Your task to perform on an android device: open app "Google Chrome" (install if not already installed) Image 0: 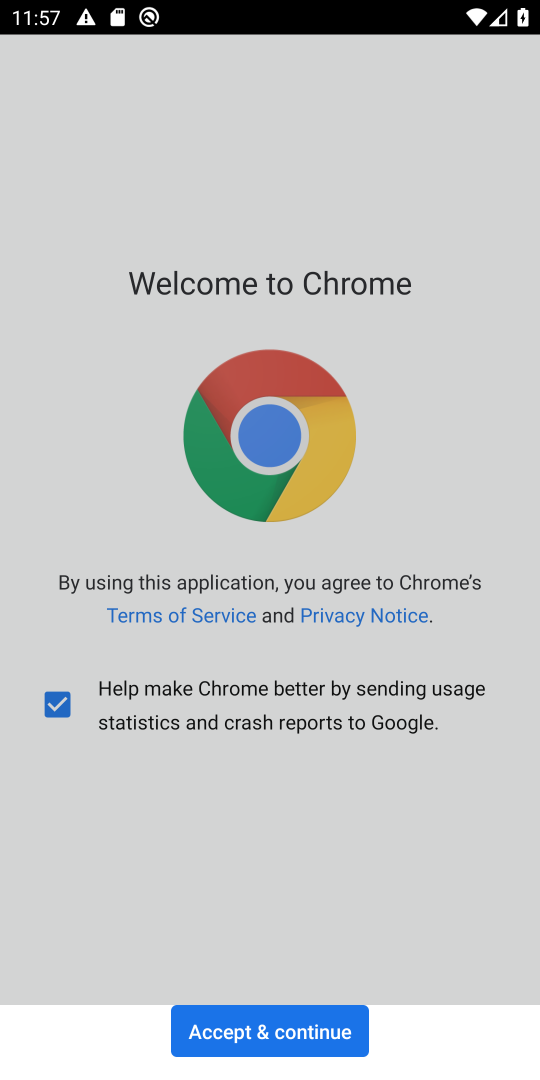
Step 0: press home button
Your task to perform on an android device: open app "Google Chrome" (install if not already installed) Image 1: 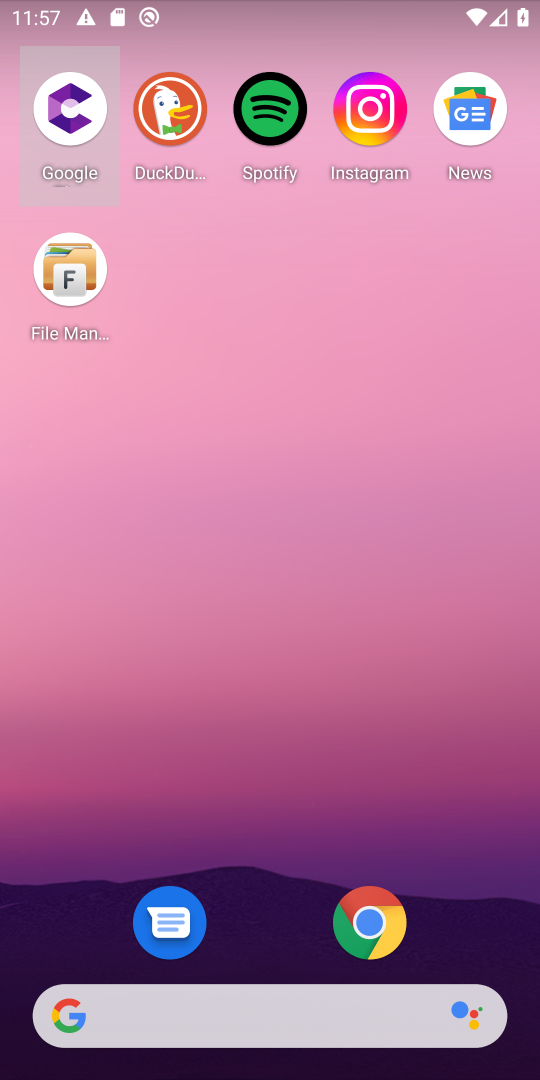
Step 1: drag from (384, 559) to (375, 93)
Your task to perform on an android device: open app "Google Chrome" (install if not already installed) Image 2: 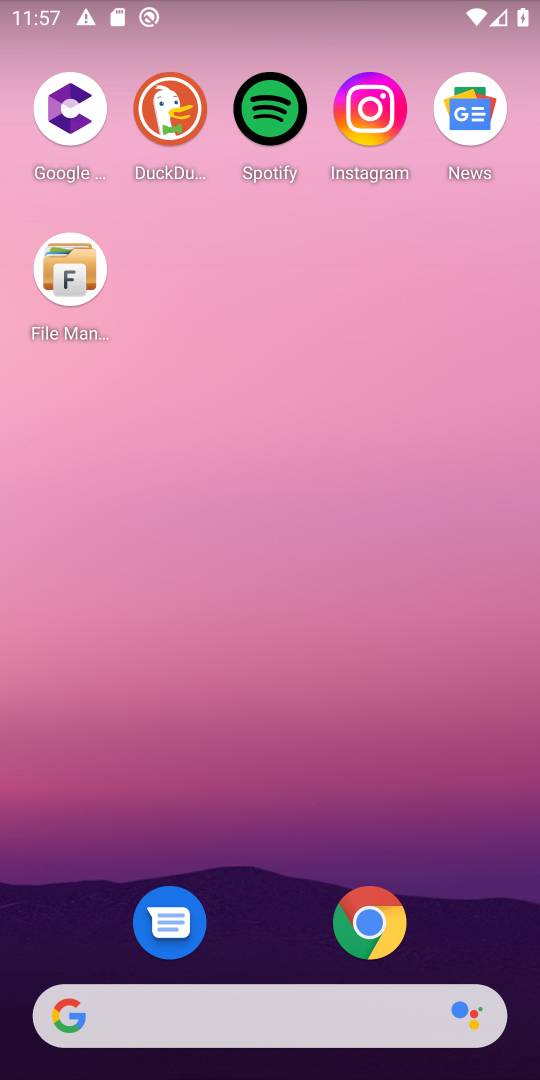
Step 2: drag from (427, 741) to (397, 149)
Your task to perform on an android device: open app "Google Chrome" (install if not already installed) Image 3: 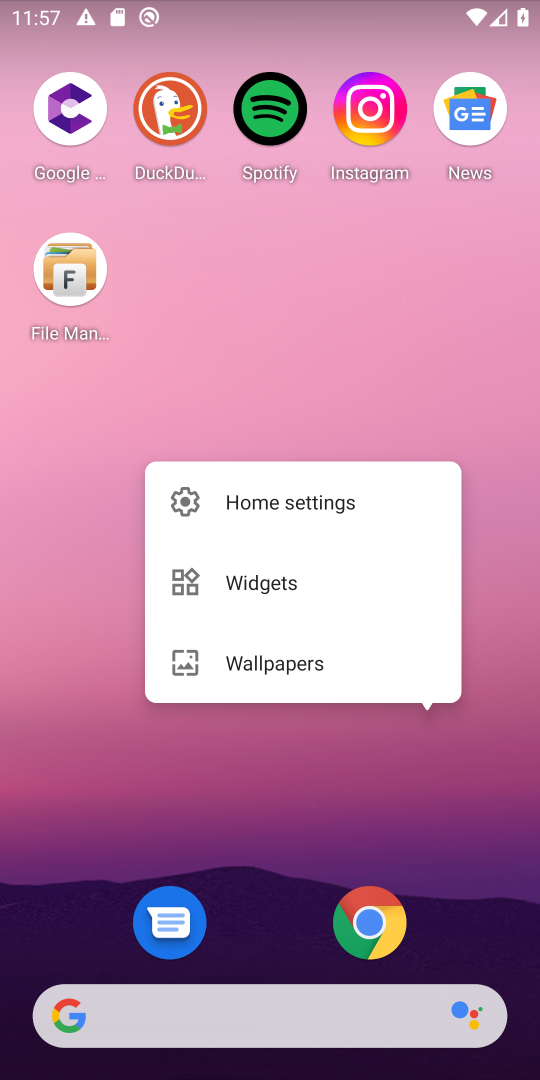
Step 3: click (352, 404)
Your task to perform on an android device: open app "Google Chrome" (install if not already installed) Image 4: 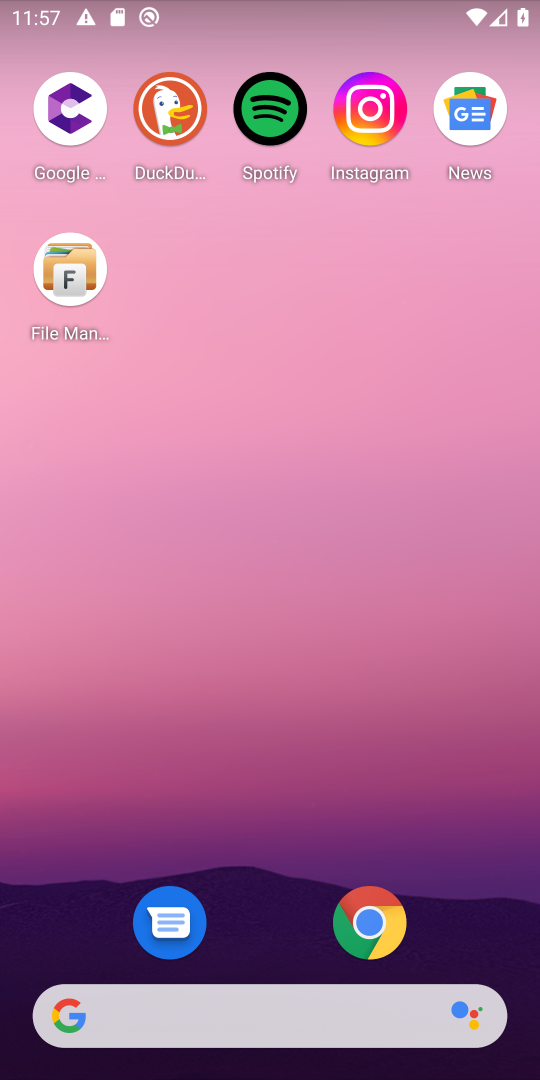
Step 4: drag from (459, 924) to (378, 112)
Your task to perform on an android device: open app "Google Chrome" (install if not already installed) Image 5: 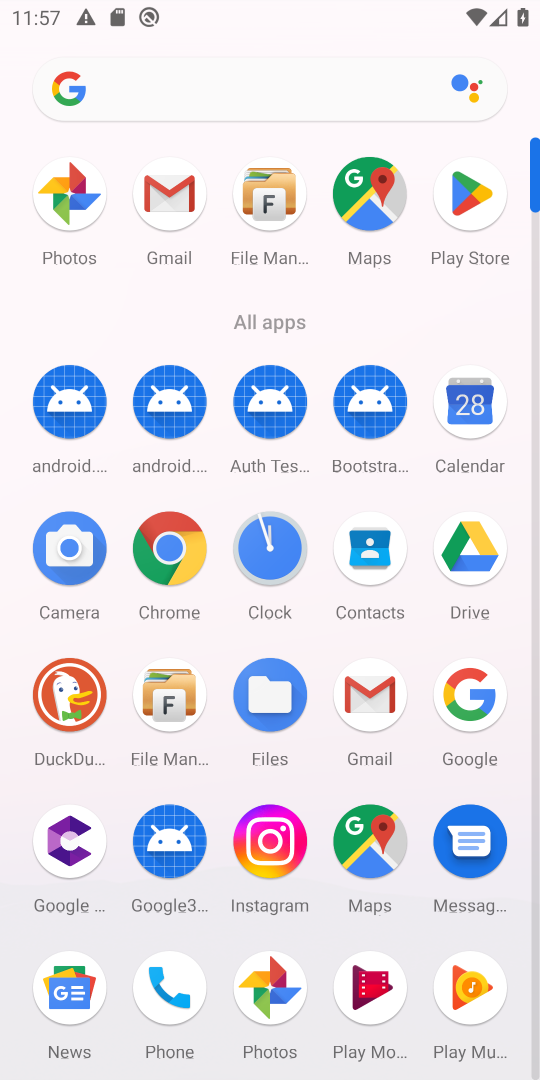
Step 5: click (473, 212)
Your task to perform on an android device: open app "Google Chrome" (install if not already installed) Image 6: 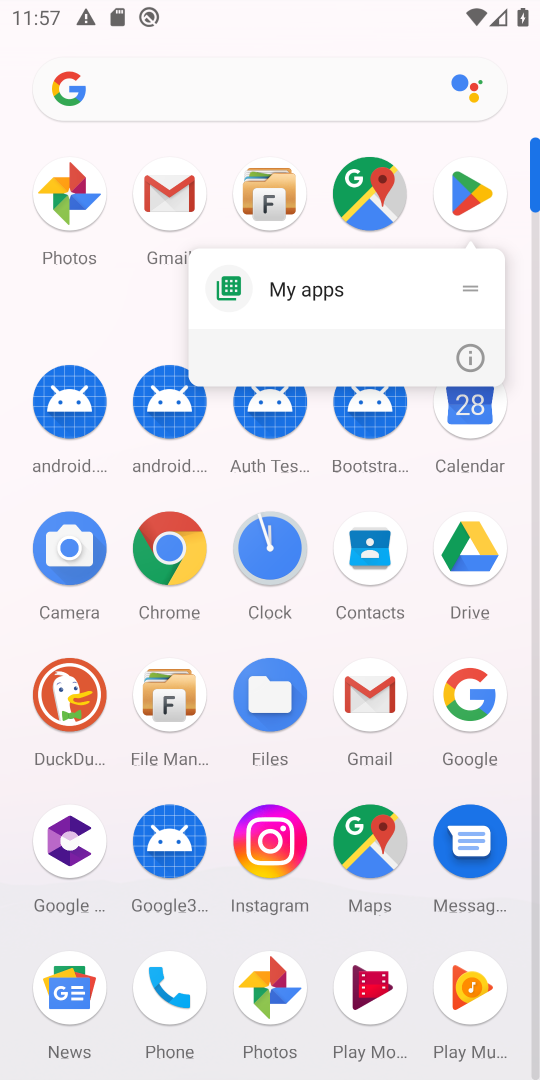
Step 6: click (471, 192)
Your task to perform on an android device: open app "Google Chrome" (install if not already installed) Image 7: 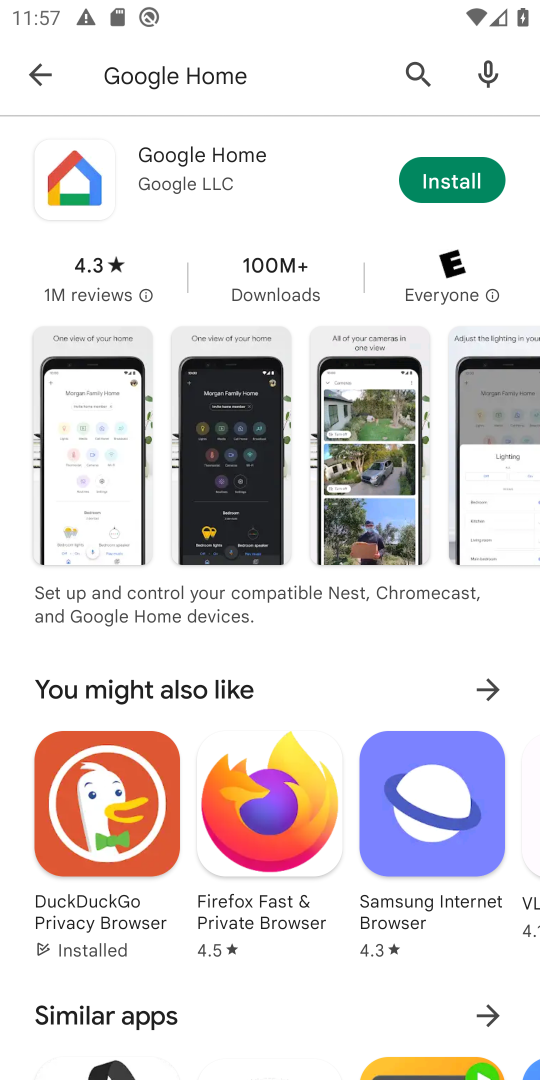
Step 7: click (254, 86)
Your task to perform on an android device: open app "Google Chrome" (install if not already installed) Image 8: 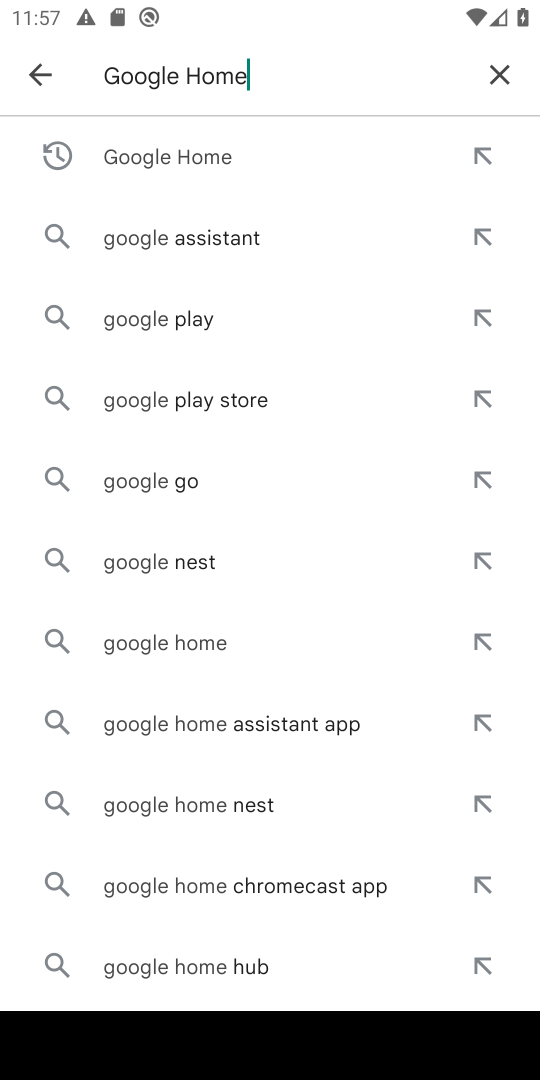
Step 8: click (506, 77)
Your task to perform on an android device: open app "Google Chrome" (install if not already installed) Image 9: 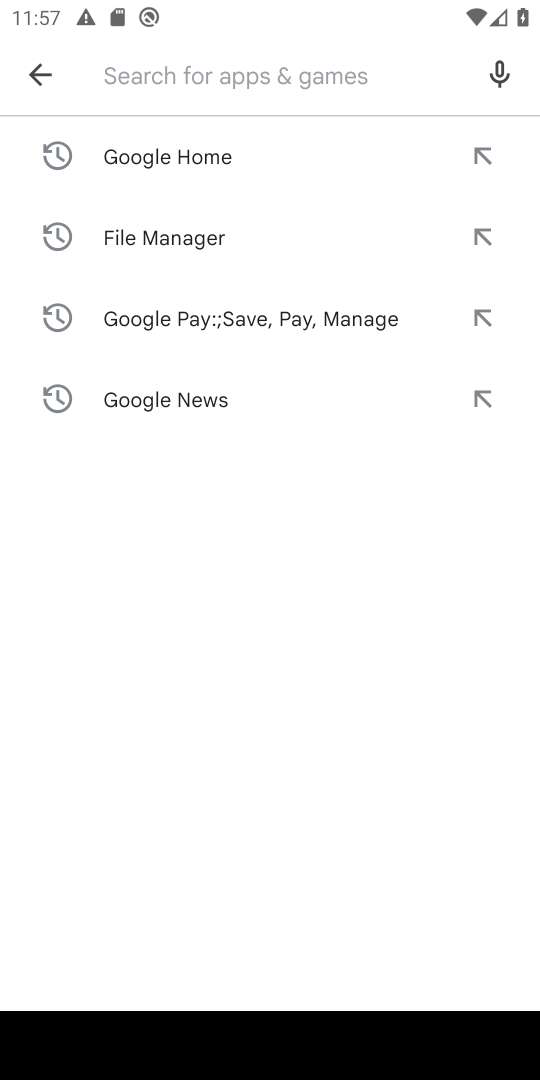
Step 9: type "Google Chrome"
Your task to perform on an android device: open app "Google Chrome" (install if not already installed) Image 10: 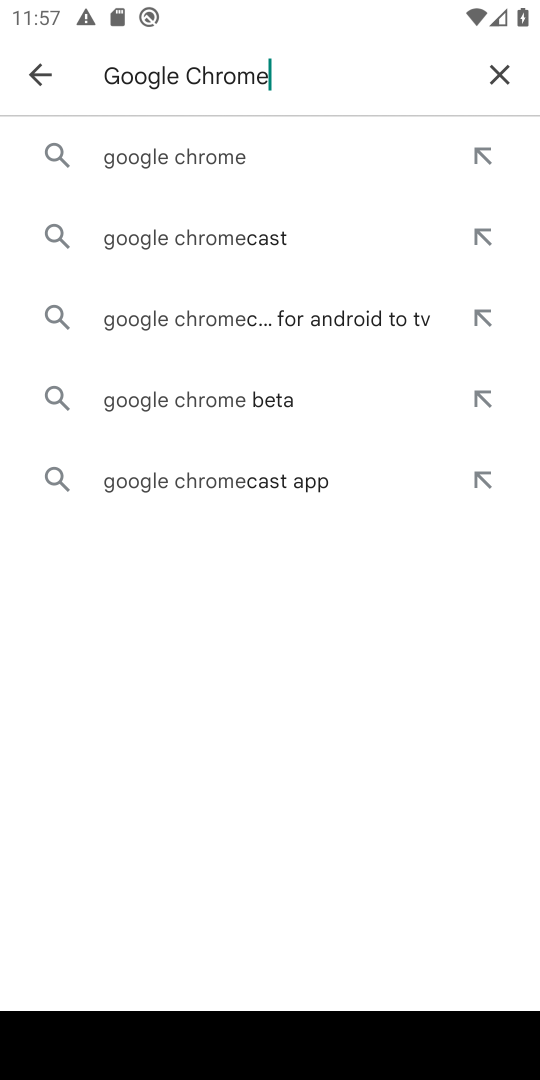
Step 10: press enter
Your task to perform on an android device: open app "Google Chrome" (install if not already installed) Image 11: 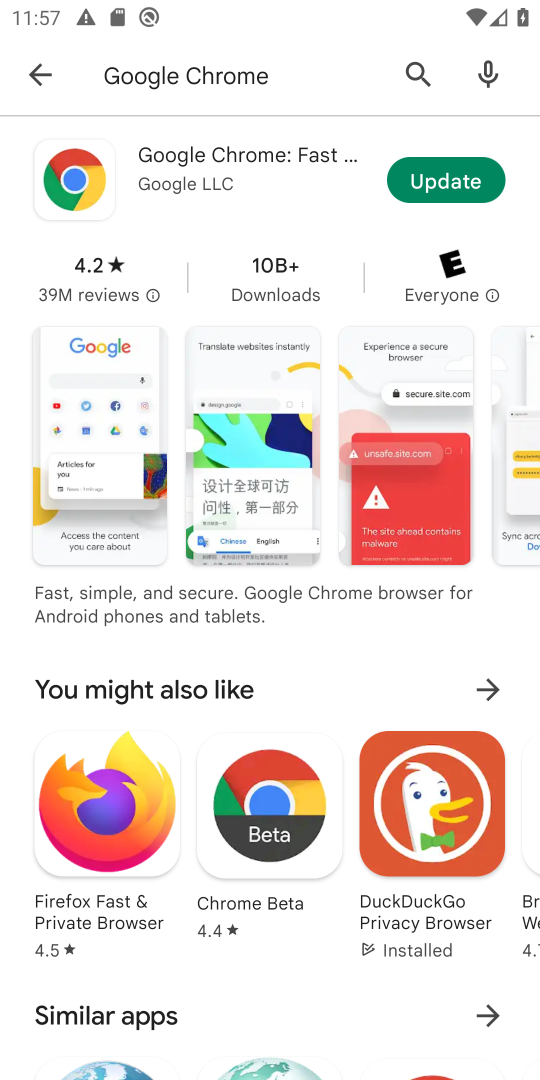
Step 11: click (311, 172)
Your task to perform on an android device: open app "Google Chrome" (install if not already installed) Image 12: 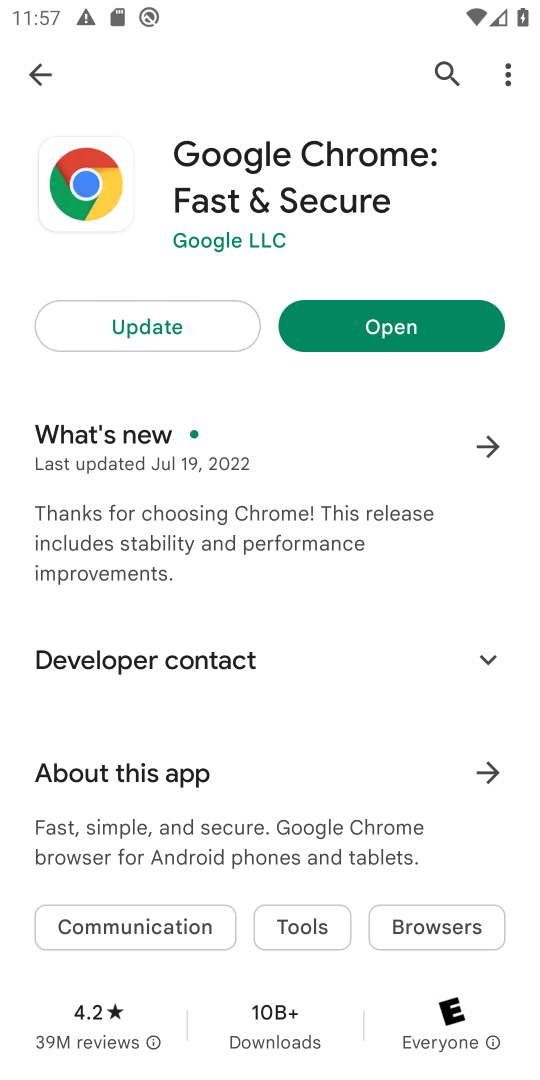
Step 12: click (355, 319)
Your task to perform on an android device: open app "Google Chrome" (install if not already installed) Image 13: 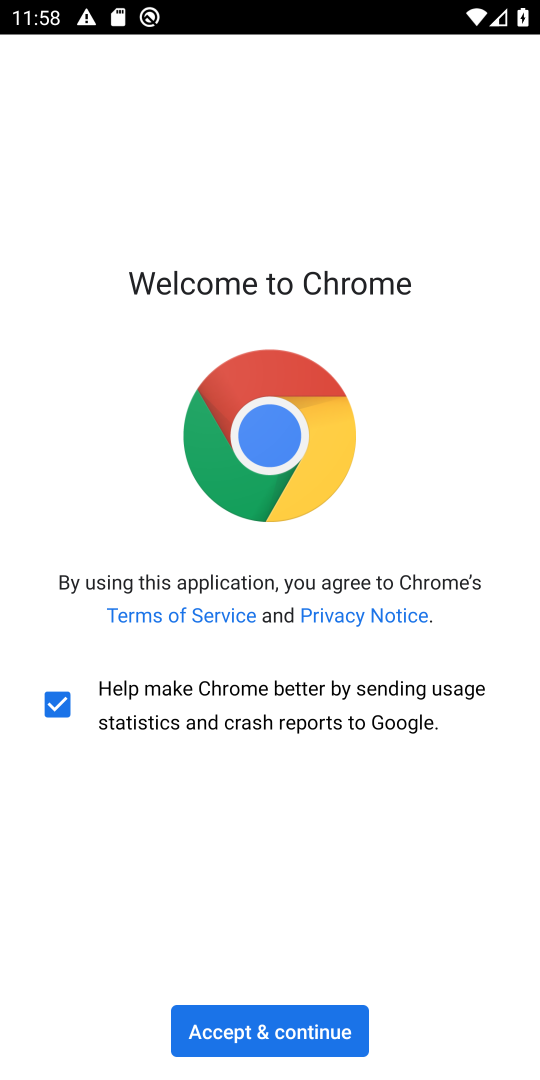
Step 13: task complete